Your task to perform on an android device: turn on showing notifications on the lock screen Image 0: 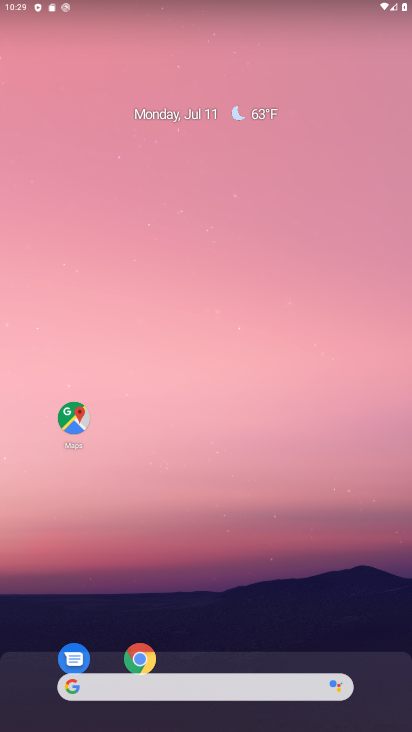
Step 0: drag from (241, 199) to (228, 162)
Your task to perform on an android device: turn on showing notifications on the lock screen Image 1: 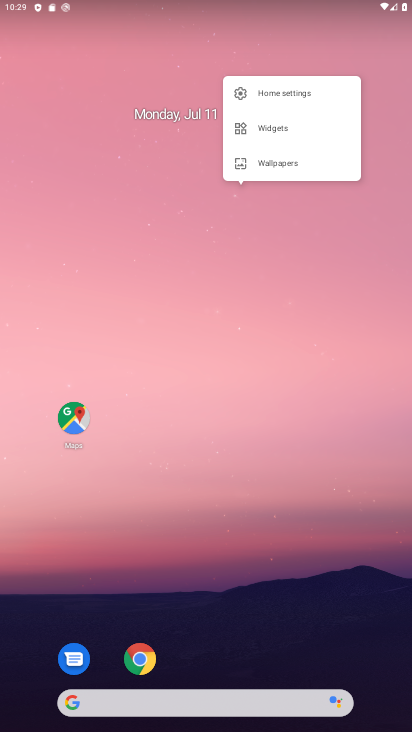
Step 1: drag from (395, 629) to (367, 284)
Your task to perform on an android device: turn on showing notifications on the lock screen Image 2: 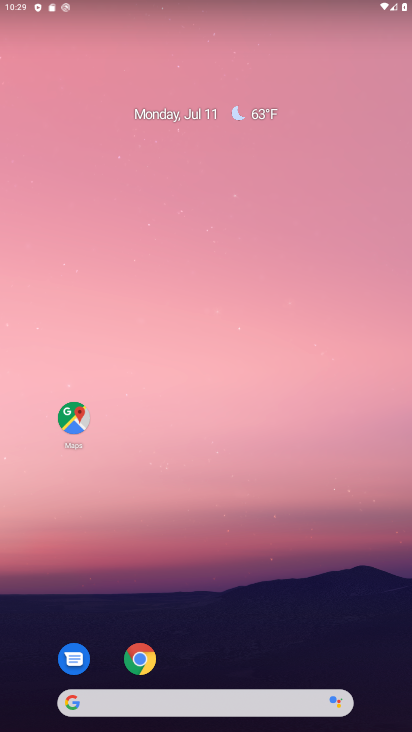
Step 2: drag from (388, 599) to (359, 178)
Your task to perform on an android device: turn on showing notifications on the lock screen Image 3: 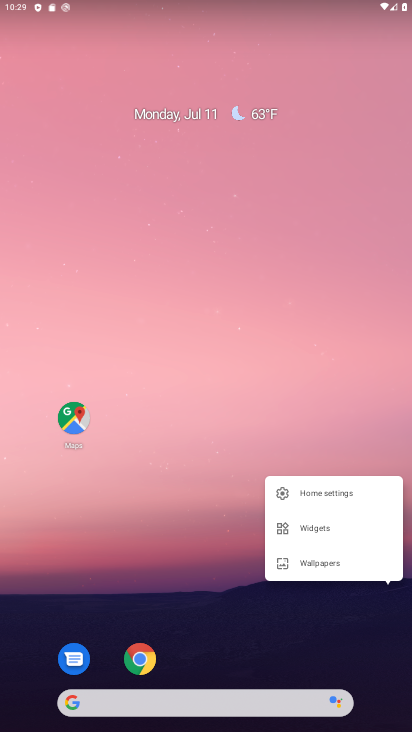
Step 3: click (244, 360)
Your task to perform on an android device: turn on showing notifications on the lock screen Image 4: 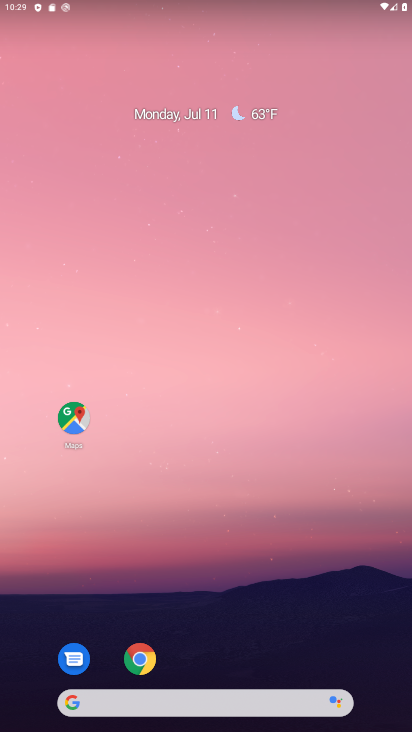
Step 4: drag from (347, 627) to (286, 62)
Your task to perform on an android device: turn on showing notifications on the lock screen Image 5: 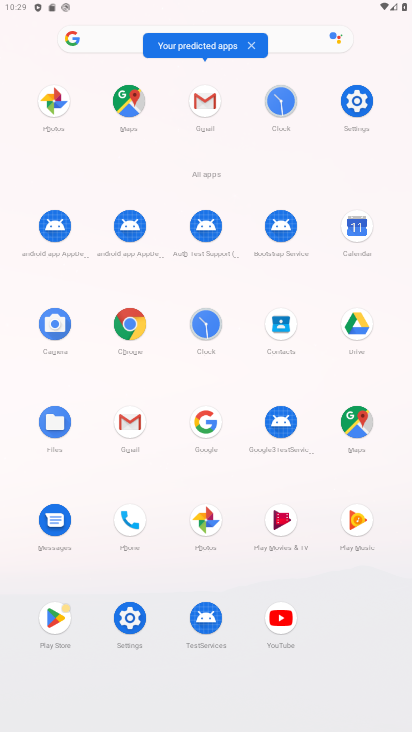
Step 5: click (360, 102)
Your task to perform on an android device: turn on showing notifications on the lock screen Image 6: 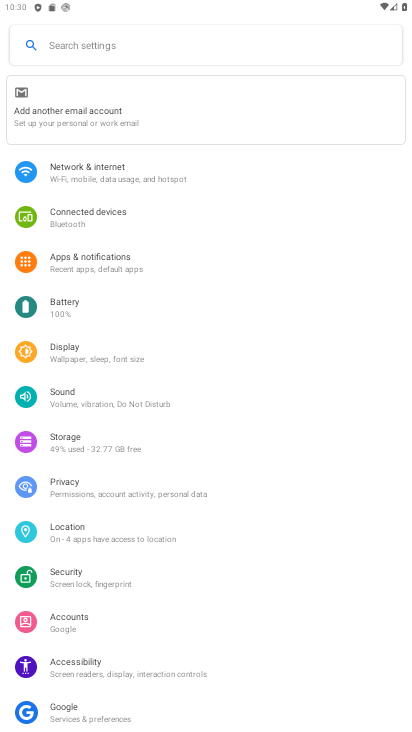
Step 6: drag from (154, 690) to (140, 193)
Your task to perform on an android device: turn on showing notifications on the lock screen Image 7: 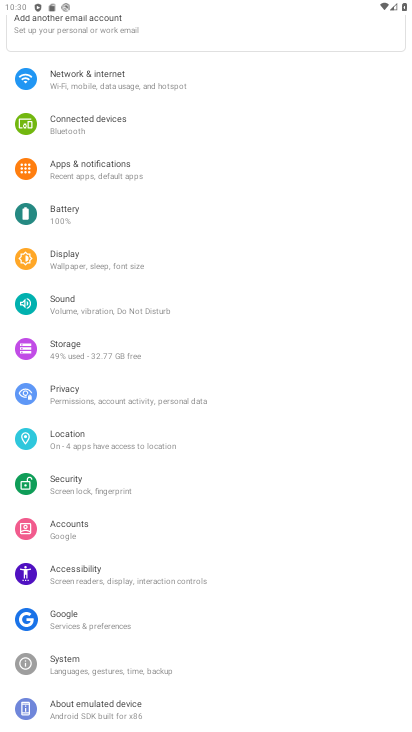
Step 7: click (131, 176)
Your task to perform on an android device: turn on showing notifications on the lock screen Image 8: 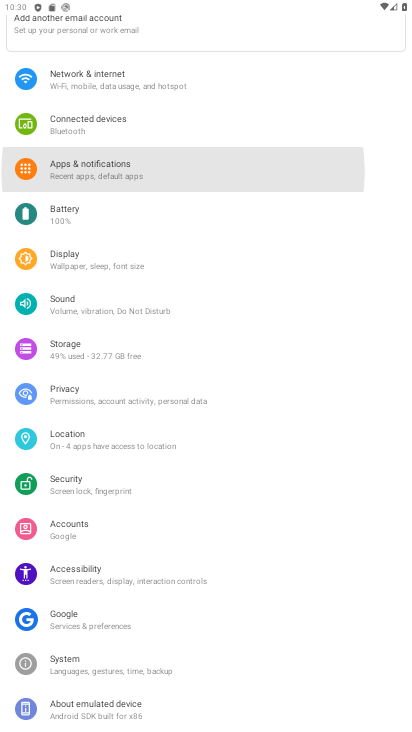
Step 8: click (135, 172)
Your task to perform on an android device: turn on showing notifications on the lock screen Image 9: 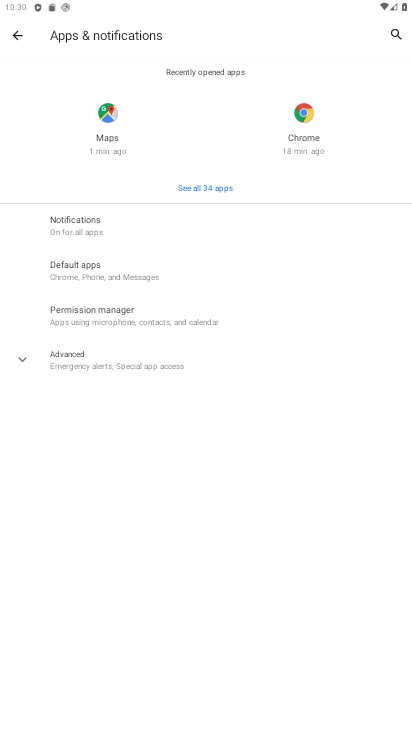
Step 9: click (144, 360)
Your task to perform on an android device: turn on showing notifications on the lock screen Image 10: 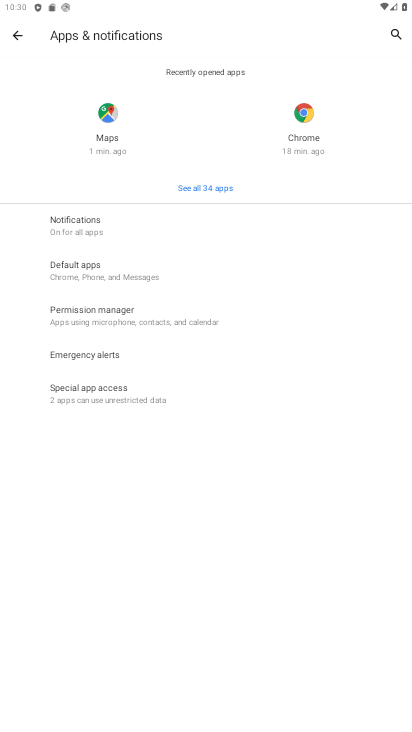
Step 10: click (156, 241)
Your task to perform on an android device: turn on showing notifications on the lock screen Image 11: 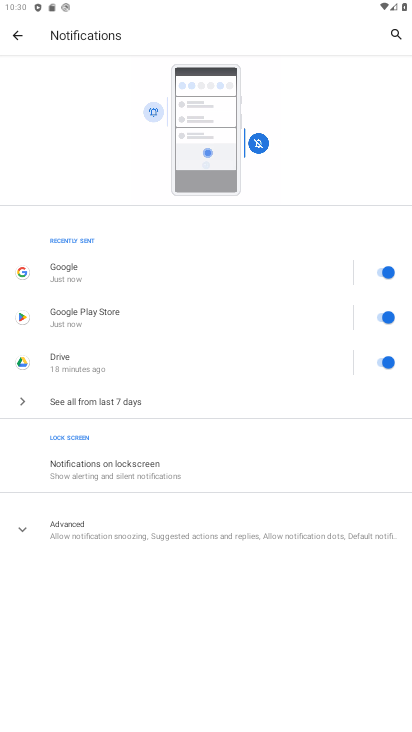
Step 11: click (154, 471)
Your task to perform on an android device: turn on showing notifications on the lock screen Image 12: 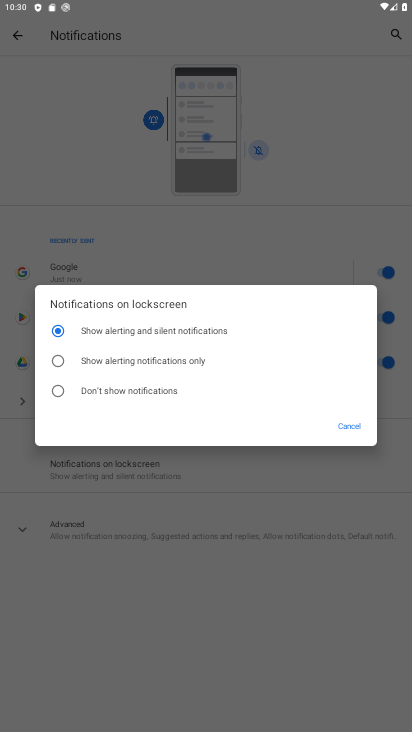
Step 12: task complete